Your task to perform on an android device: turn off wifi Image 0: 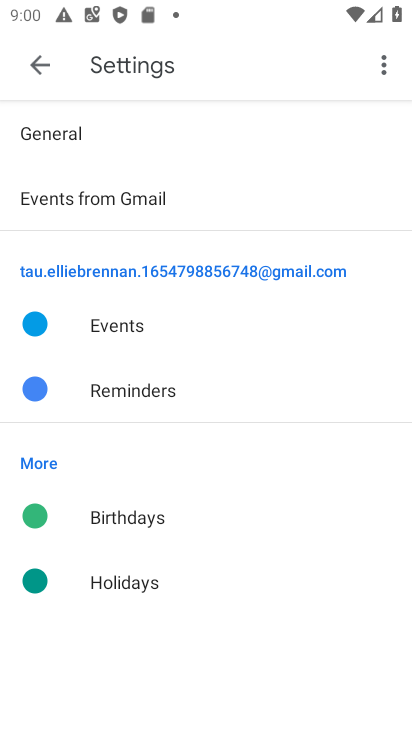
Step 0: press home button
Your task to perform on an android device: turn off wifi Image 1: 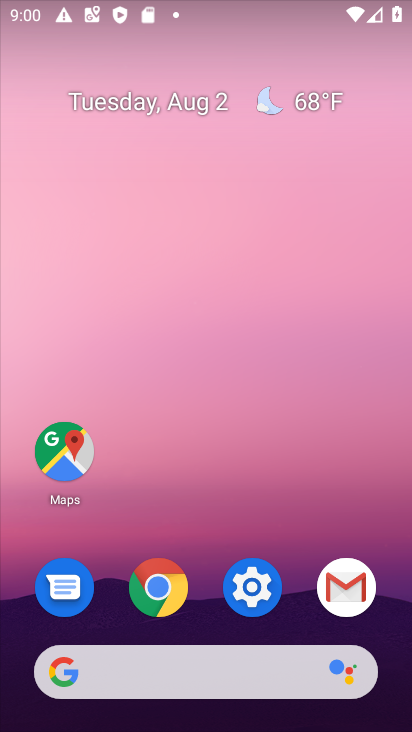
Step 1: click (246, 569)
Your task to perform on an android device: turn off wifi Image 2: 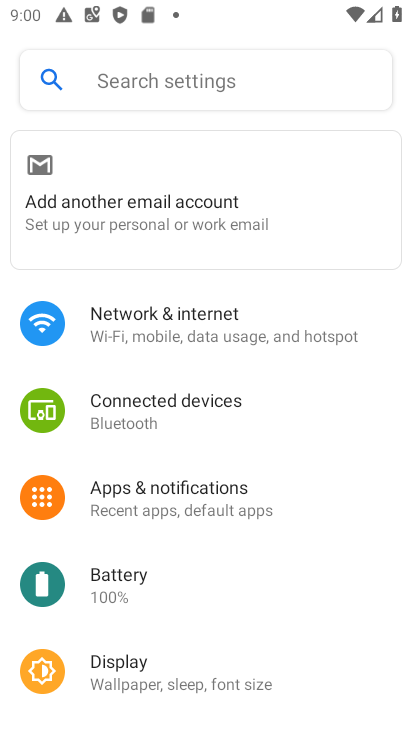
Step 2: click (156, 308)
Your task to perform on an android device: turn off wifi Image 3: 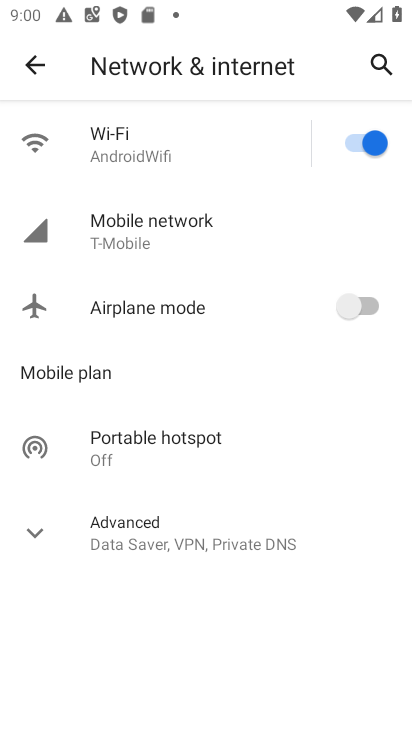
Step 3: click (340, 137)
Your task to perform on an android device: turn off wifi Image 4: 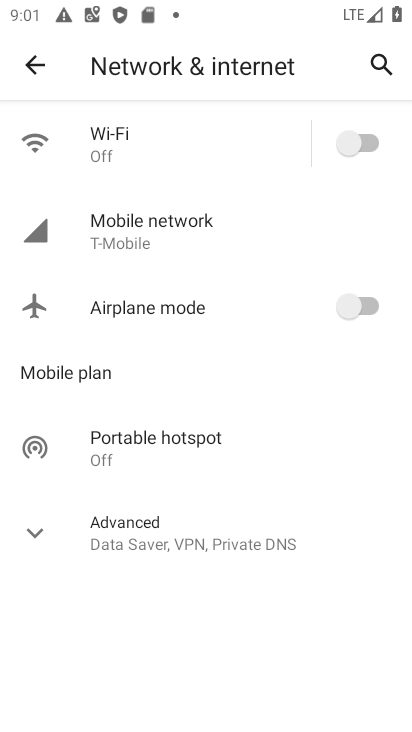
Step 4: task complete